Your task to perform on an android device: set default search engine in the chrome app Image 0: 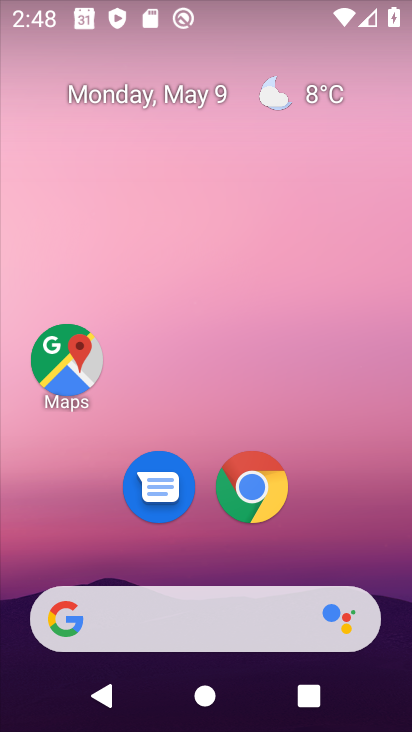
Step 0: click (250, 481)
Your task to perform on an android device: set default search engine in the chrome app Image 1: 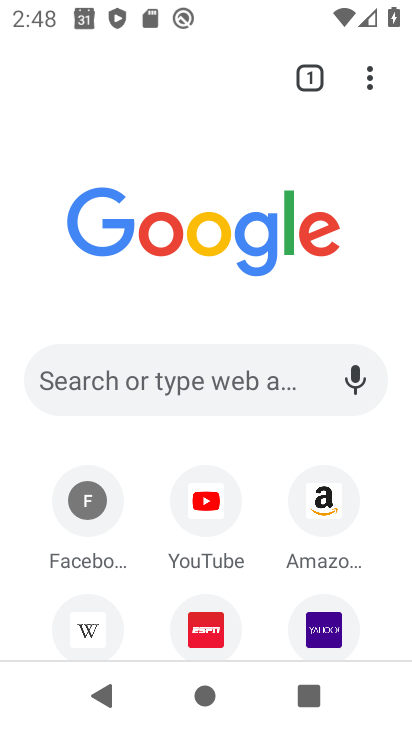
Step 1: click (367, 72)
Your task to perform on an android device: set default search engine in the chrome app Image 2: 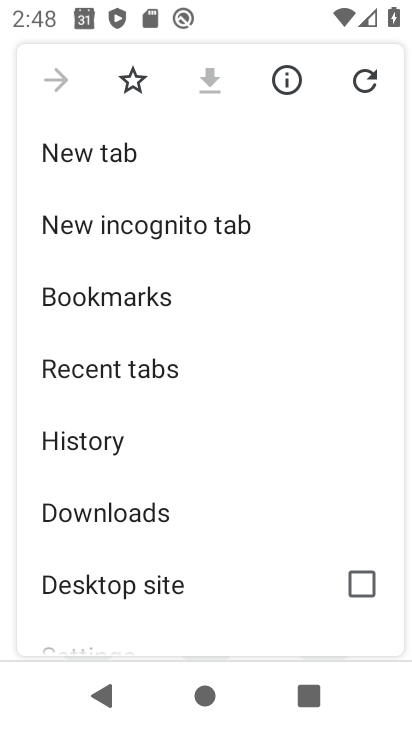
Step 2: drag from (209, 557) to (192, 99)
Your task to perform on an android device: set default search engine in the chrome app Image 3: 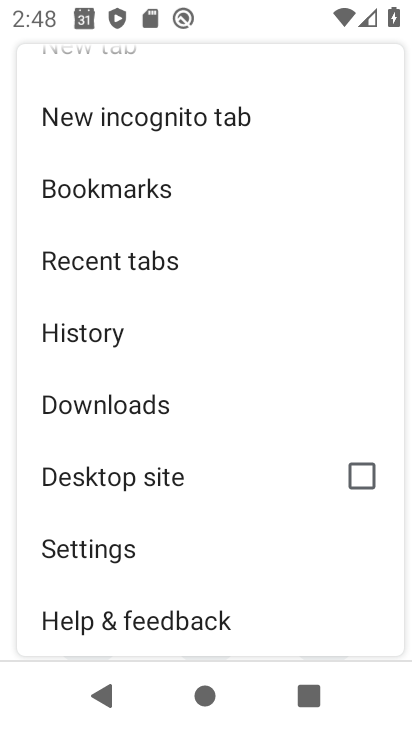
Step 3: click (155, 545)
Your task to perform on an android device: set default search engine in the chrome app Image 4: 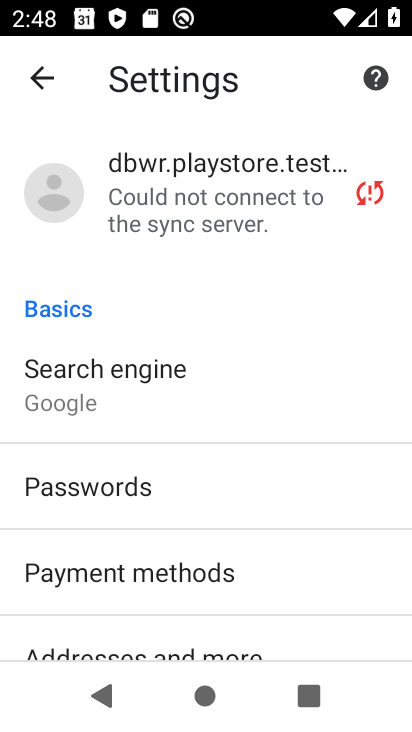
Step 4: click (130, 400)
Your task to perform on an android device: set default search engine in the chrome app Image 5: 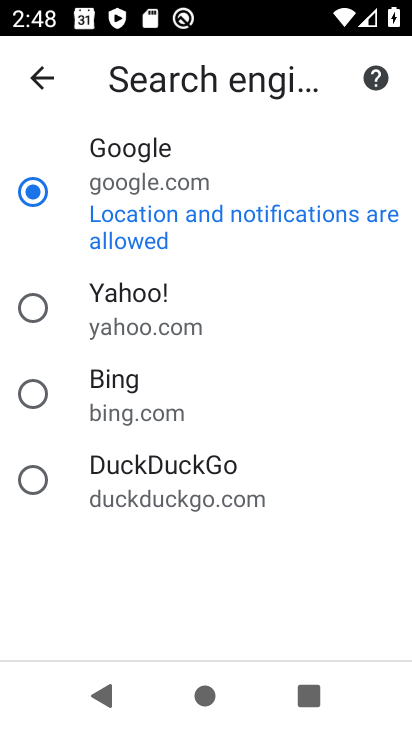
Step 5: click (28, 398)
Your task to perform on an android device: set default search engine in the chrome app Image 6: 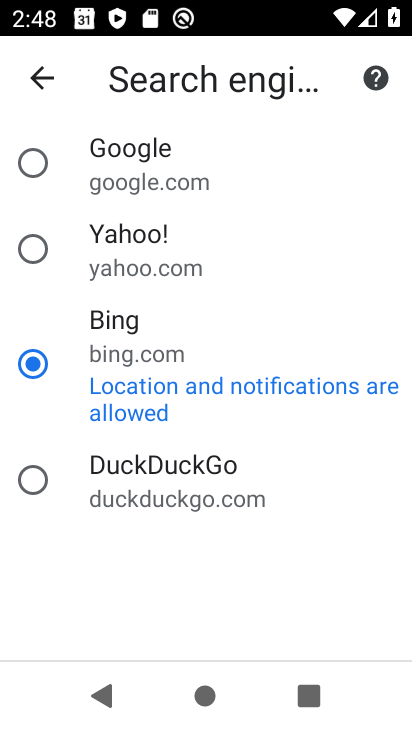
Step 6: task complete